Your task to perform on an android device: Go to Yahoo.com Image 0: 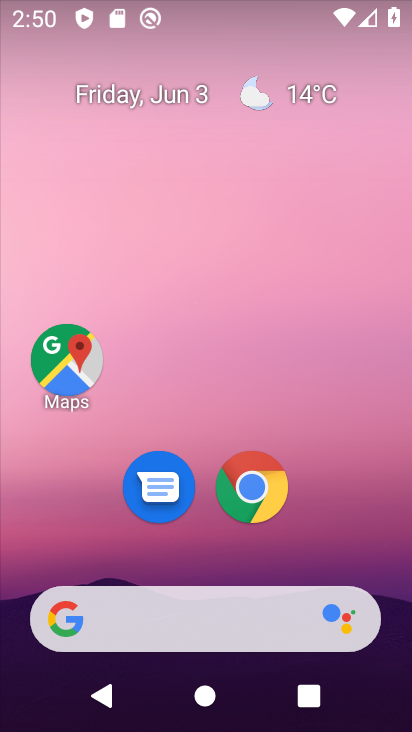
Step 0: click (250, 483)
Your task to perform on an android device: Go to Yahoo.com Image 1: 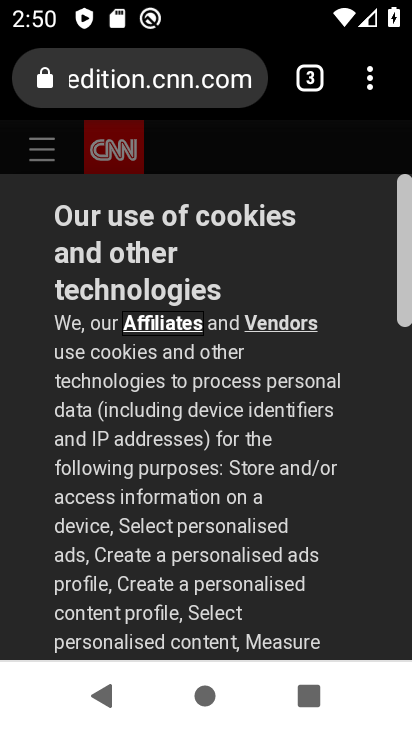
Step 1: click (318, 80)
Your task to perform on an android device: Go to Yahoo.com Image 2: 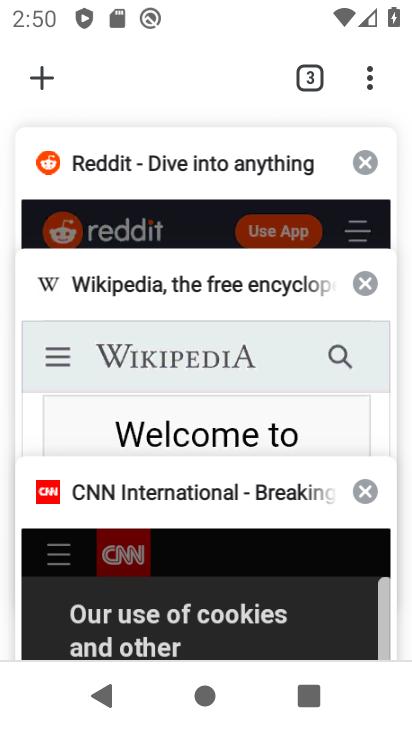
Step 2: click (48, 73)
Your task to perform on an android device: Go to Yahoo.com Image 3: 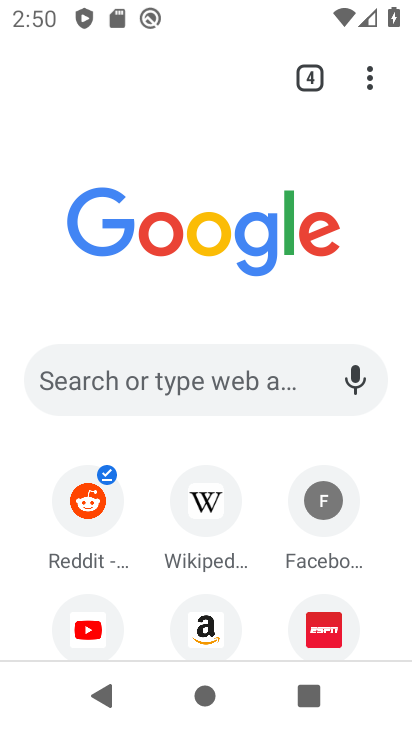
Step 3: click (139, 373)
Your task to perform on an android device: Go to Yahoo.com Image 4: 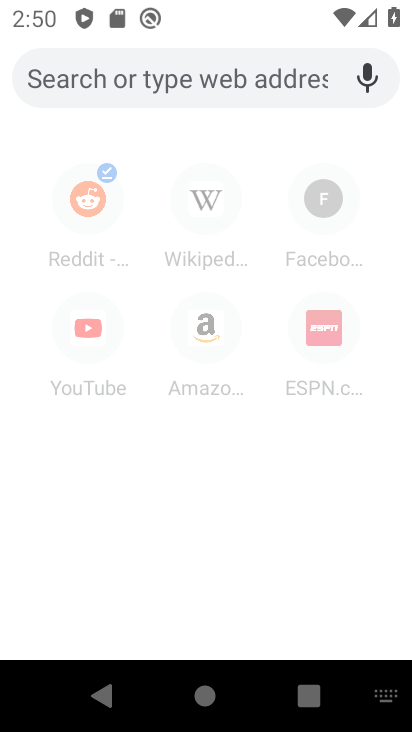
Step 4: type "yahoo.com"
Your task to perform on an android device: Go to Yahoo.com Image 5: 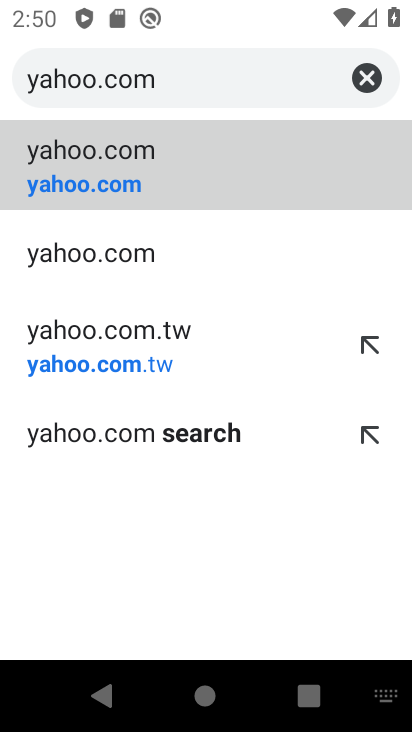
Step 5: click (89, 171)
Your task to perform on an android device: Go to Yahoo.com Image 6: 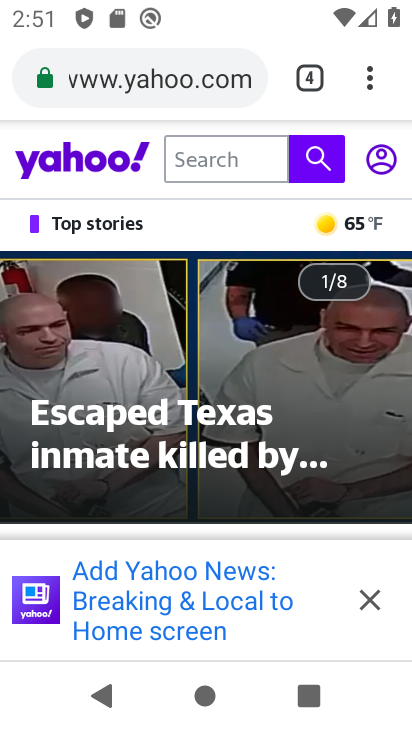
Step 6: task complete